Your task to perform on an android device: turn on showing notifications on the lock screen Image 0: 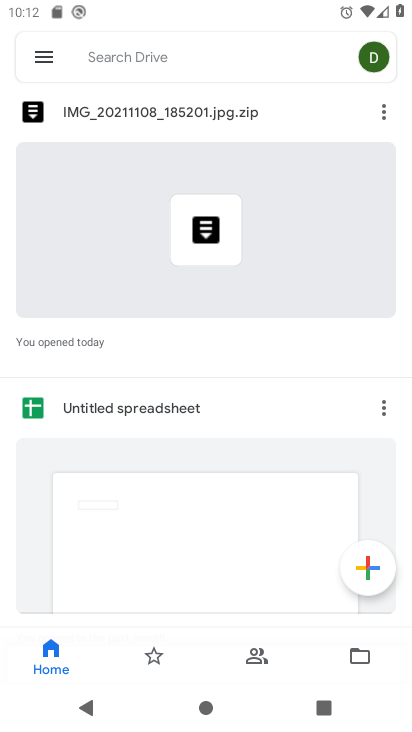
Step 0: press home button
Your task to perform on an android device: turn on showing notifications on the lock screen Image 1: 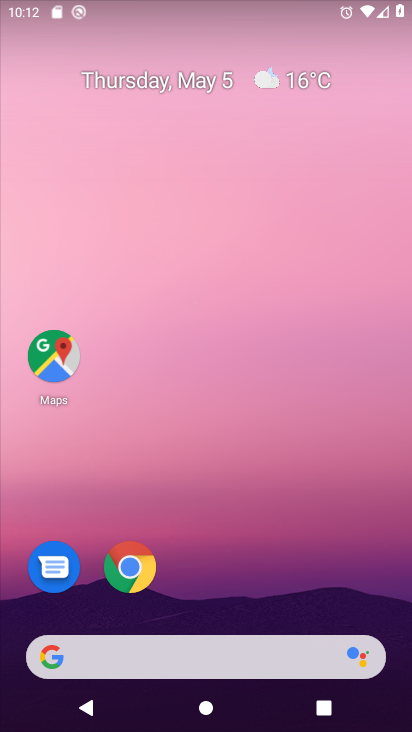
Step 1: drag from (264, 544) to (263, 52)
Your task to perform on an android device: turn on showing notifications on the lock screen Image 2: 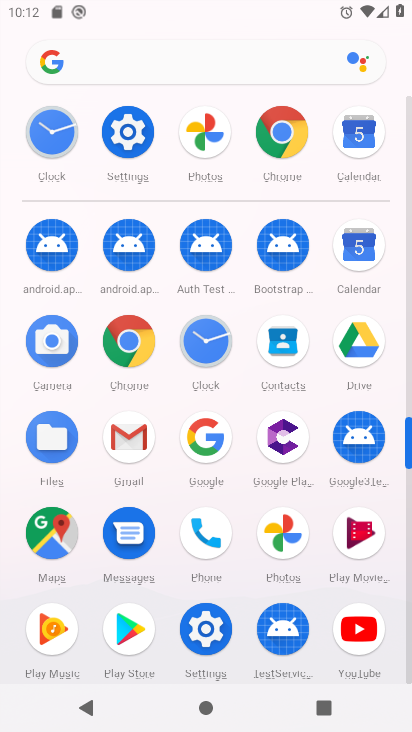
Step 2: click (132, 122)
Your task to perform on an android device: turn on showing notifications on the lock screen Image 3: 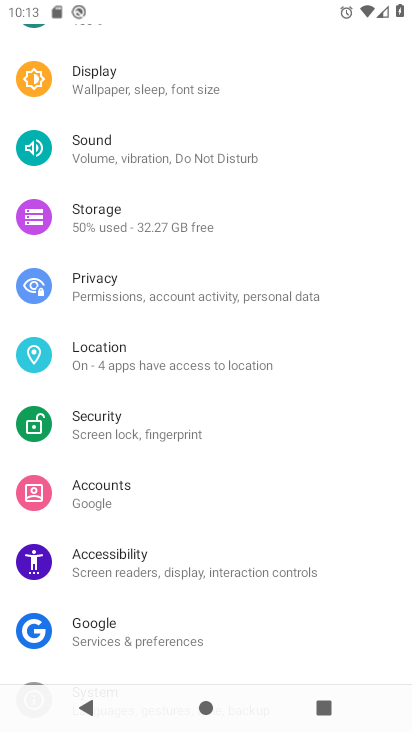
Step 3: drag from (252, 406) to (251, 506)
Your task to perform on an android device: turn on showing notifications on the lock screen Image 4: 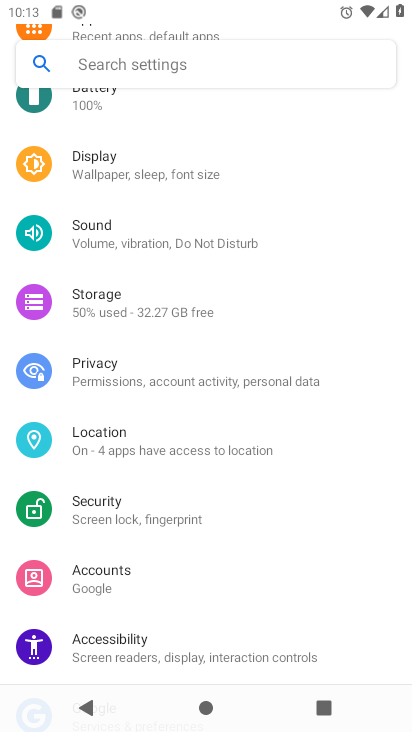
Step 4: drag from (148, 138) to (172, 480)
Your task to perform on an android device: turn on showing notifications on the lock screen Image 5: 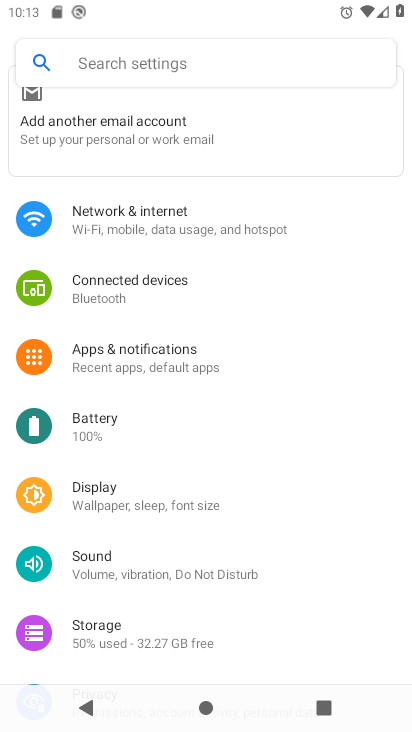
Step 5: click (163, 356)
Your task to perform on an android device: turn on showing notifications on the lock screen Image 6: 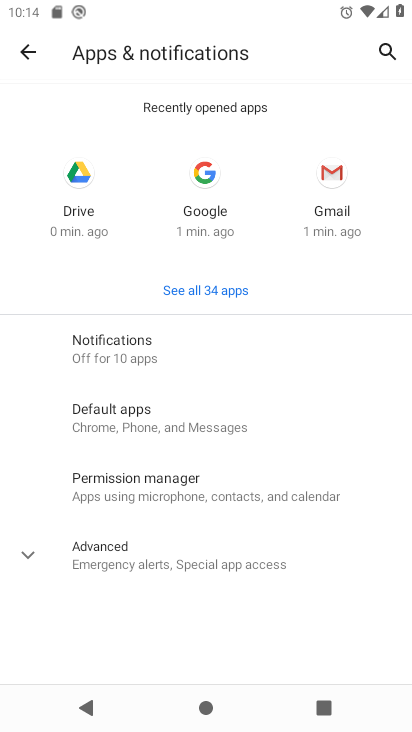
Step 6: click (205, 345)
Your task to perform on an android device: turn on showing notifications on the lock screen Image 7: 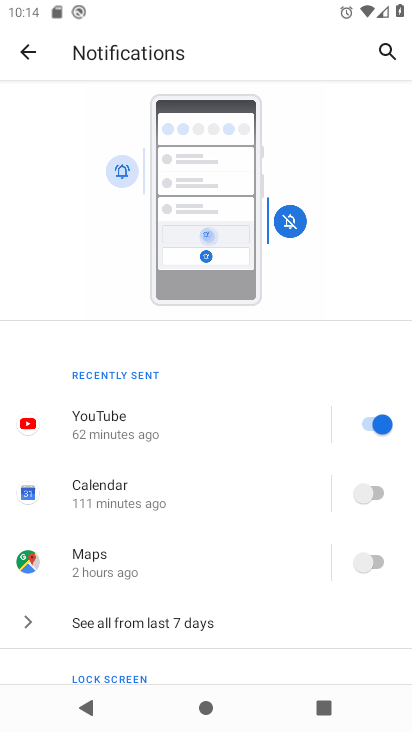
Step 7: drag from (250, 542) to (264, 235)
Your task to perform on an android device: turn on showing notifications on the lock screen Image 8: 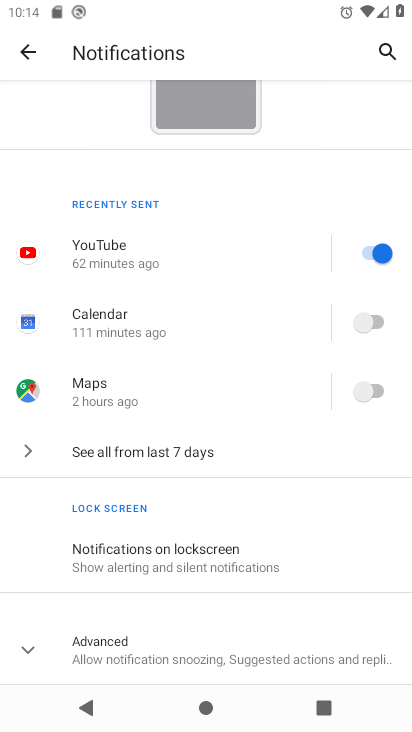
Step 8: click (232, 548)
Your task to perform on an android device: turn on showing notifications on the lock screen Image 9: 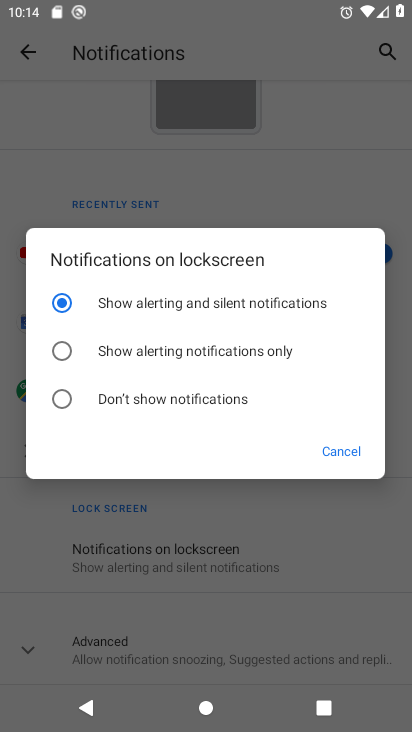
Step 9: click (343, 446)
Your task to perform on an android device: turn on showing notifications on the lock screen Image 10: 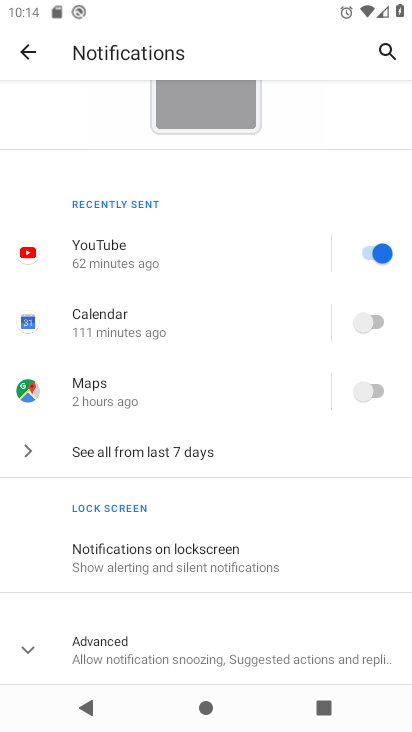
Step 10: task complete